Your task to perform on an android device: create a new album in the google photos Image 0: 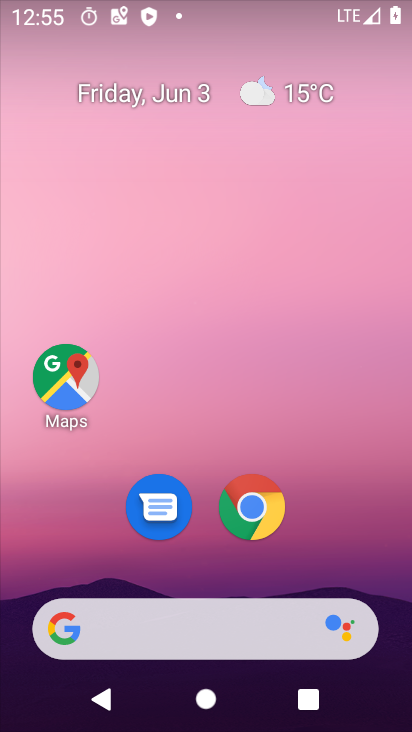
Step 0: drag from (397, 648) to (317, 54)
Your task to perform on an android device: create a new album in the google photos Image 1: 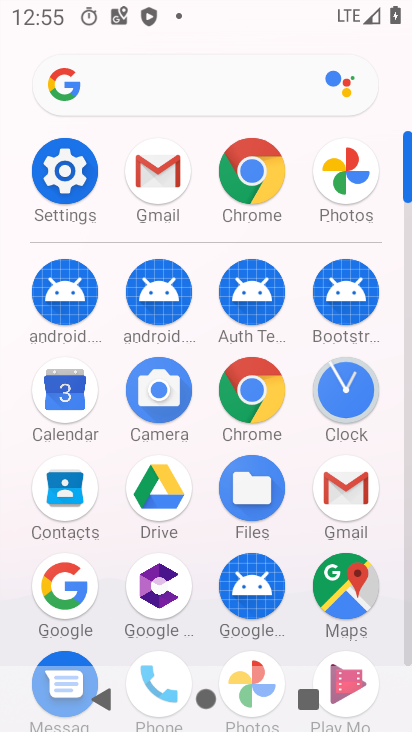
Step 1: click (251, 661)
Your task to perform on an android device: create a new album in the google photos Image 2: 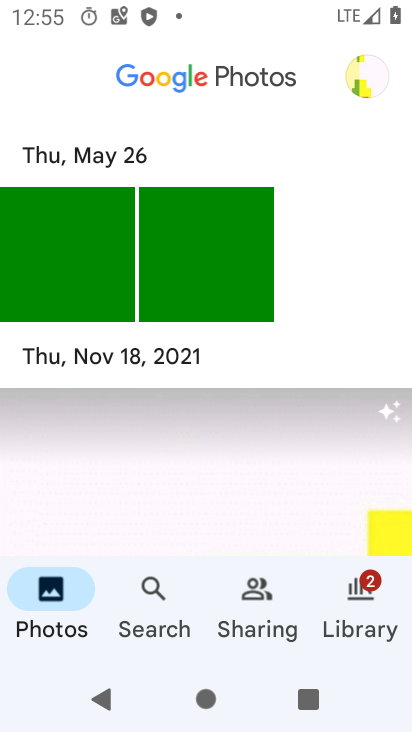
Step 2: click (113, 258)
Your task to perform on an android device: create a new album in the google photos Image 3: 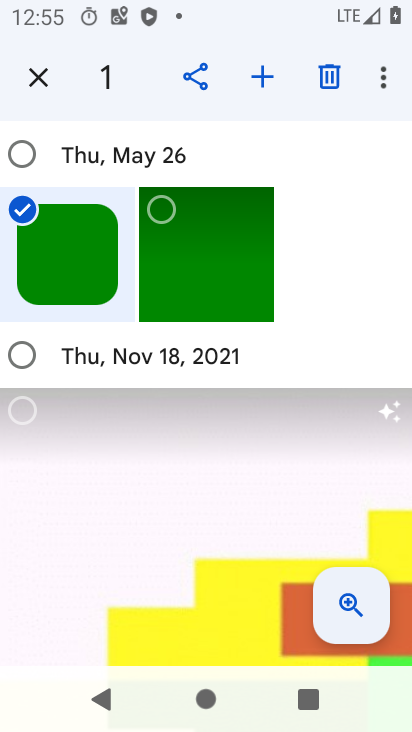
Step 3: click (226, 258)
Your task to perform on an android device: create a new album in the google photos Image 4: 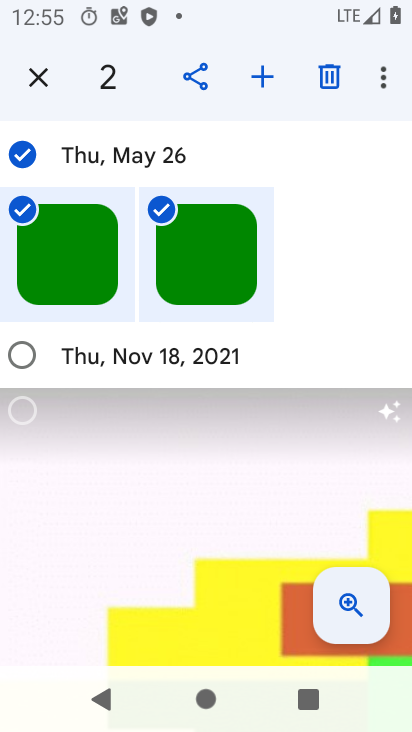
Step 4: click (273, 57)
Your task to perform on an android device: create a new album in the google photos Image 5: 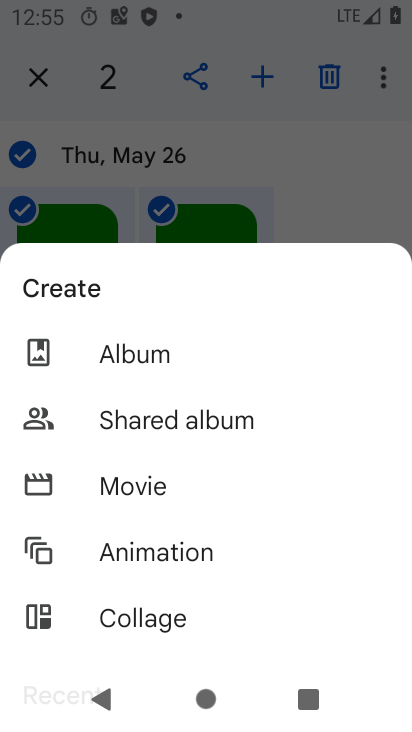
Step 5: click (96, 368)
Your task to perform on an android device: create a new album in the google photos Image 6: 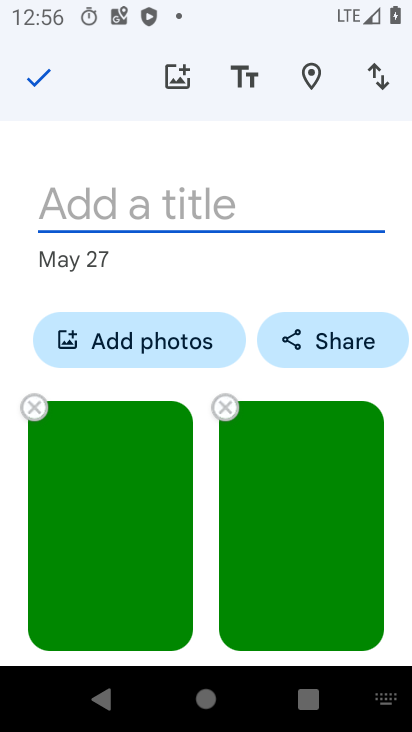
Step 6: type "ysssssss"
Your task to perform on an android device: create a new album in the google photos Image 7: 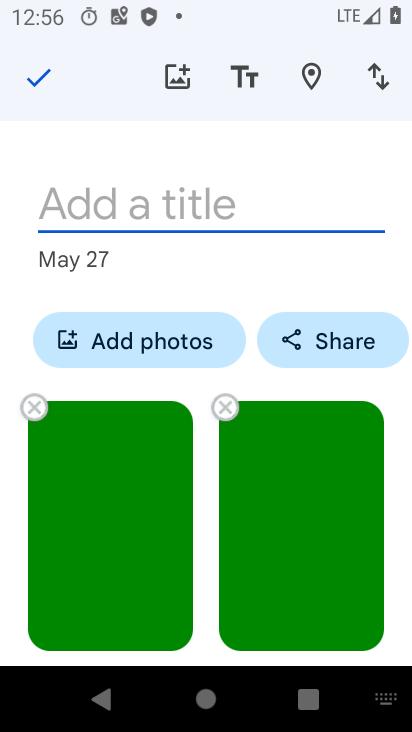
Step 7: click (21, 83)
Your task to perform on an android device: create a new album in the google photos Image 8: 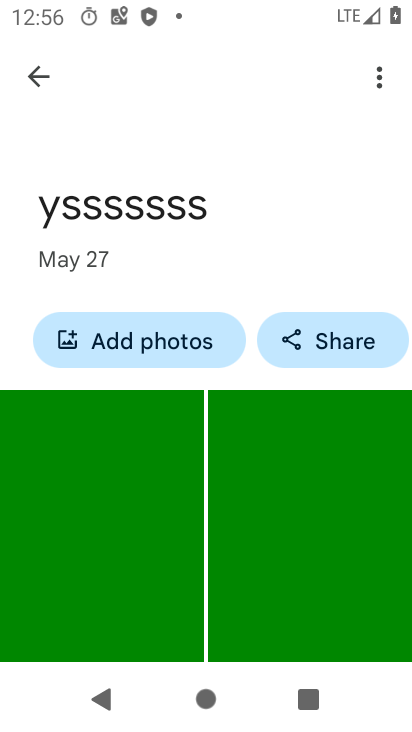
Step 8: task complete